Your task to perform on an android device: Show me recent news Image 0: 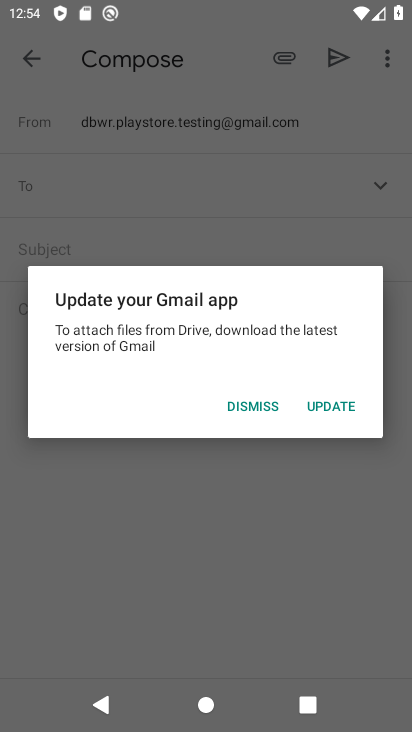
Step 0: press back button
Your task to perform on an android device: Show me recent news Image 1: 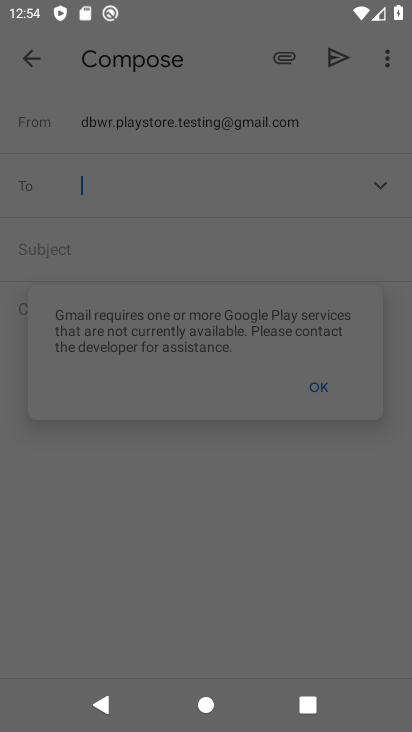
Step 1: press back button
Your task to perform on an android device: Show me recent news Image 2: 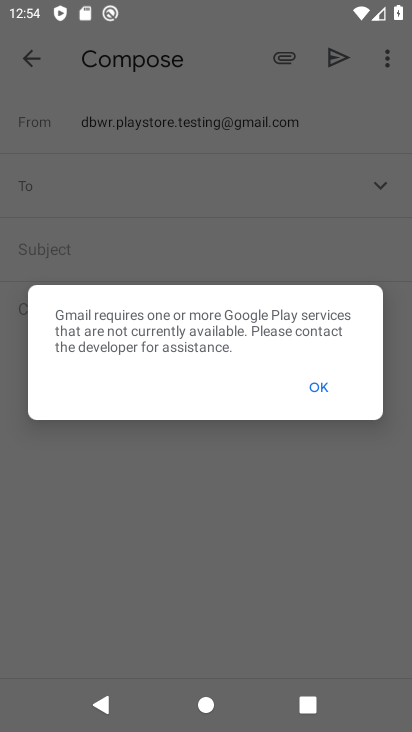
Step 2: press back button
Your task to perform on an android device: Show me recent news Image 3: 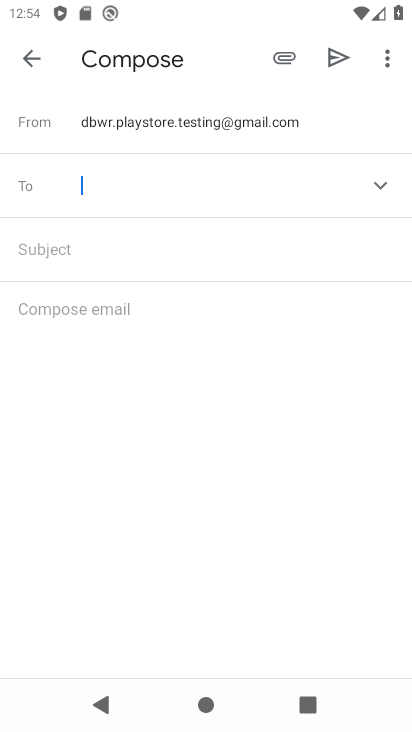
Step 3: press back button
Your task to perform on an android device: Show me recent news Image 4: 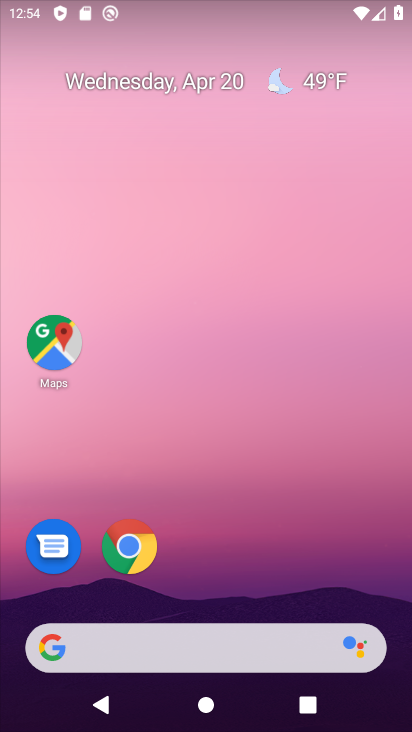
Step 4: click (203, 633)
Your task to perform on an android device: Show me recent news Image 5: 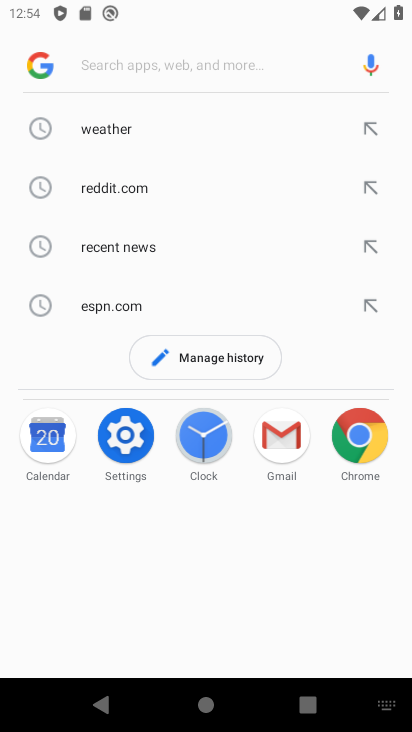
Step 5: click (166, 246)
Your task to perform on an android device: Show me recent news Image 6: 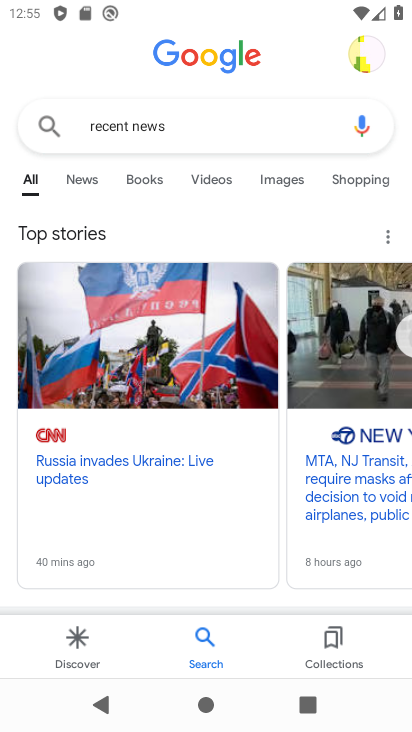
Step 6: task complete